Your task to perform on an android device: clear history in the chrome app Image 0: 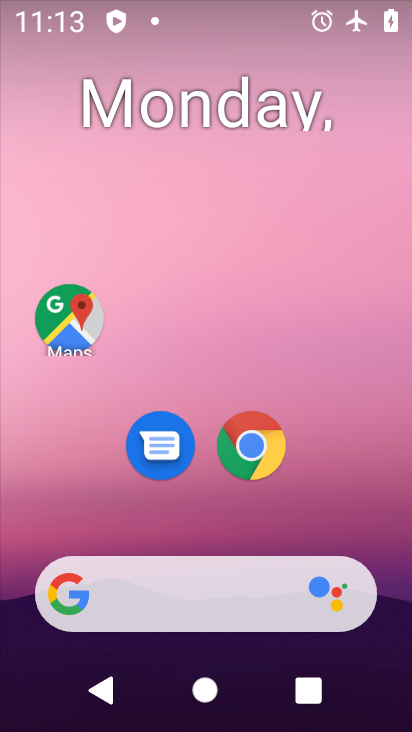
Step 0: click (271, 447)
Your task to perform on an android device: clear history in the chrome app Image 1: 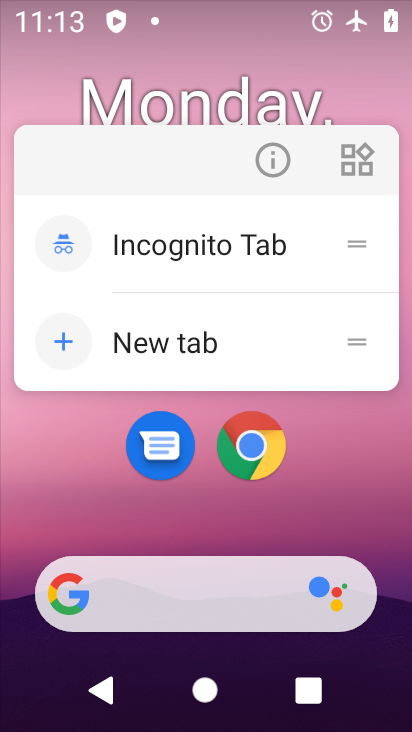
Step 1: click (241, 452)
Your task to perform on an android device: clear history in the chrome app Image 2: 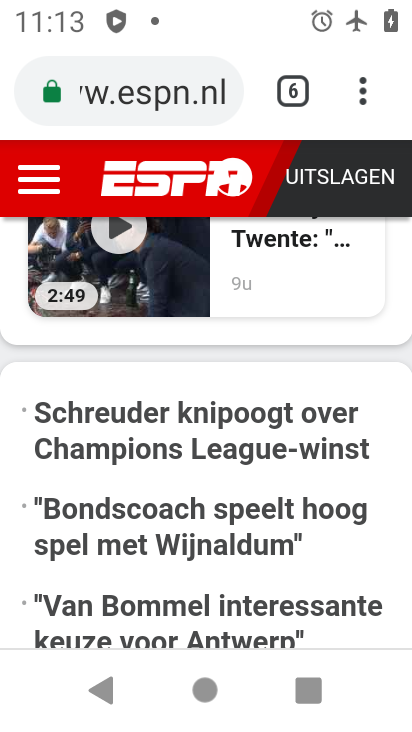
Step 2: click (360, 93)
Your task to perform on an android device: clear history in the chrome app Image 3: 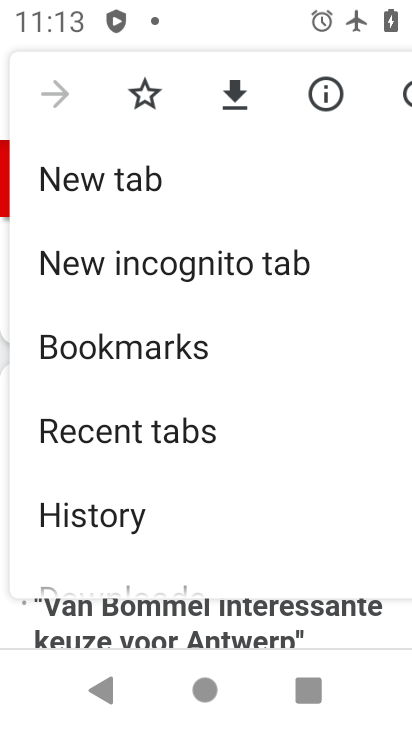
Step 3: drag from (142, 506) to (136, 248)
Your task to perform on an android device: clear history in the chrome app Image 4: 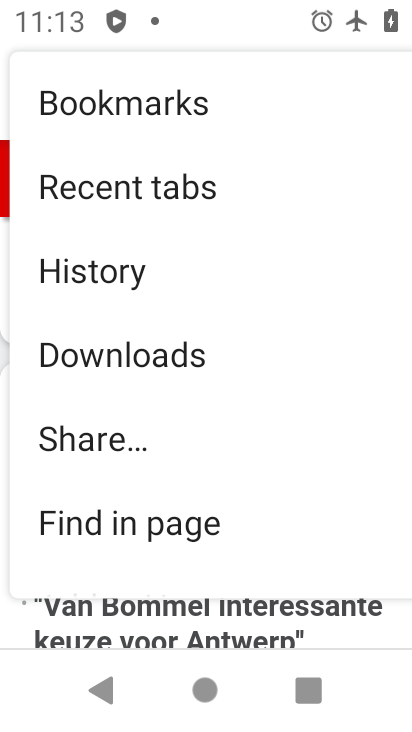
Step 4: click (111, 269)
Your task to perform on an android device: clear history in the chrome app Image 5: 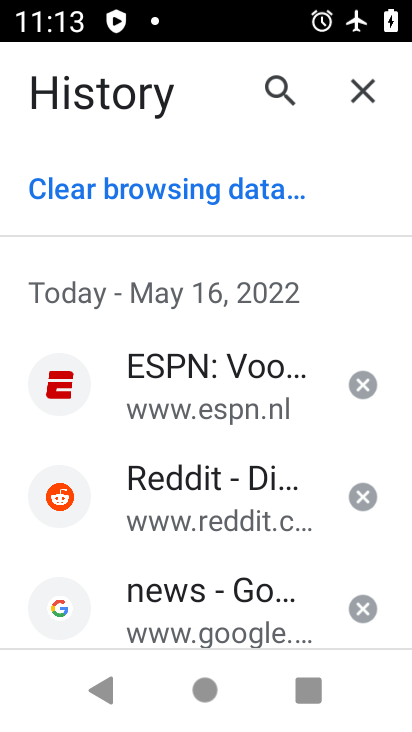
Step 5: click (163, 194)
Your task to perform on an android device: clear history in the chrome app Image 6: 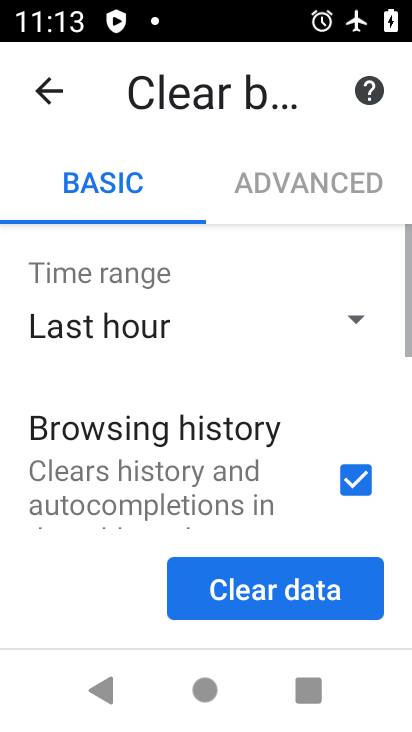
Step 6: click (265, 598)
Your task to perform on an android device: clear history in the chrome app Image 7: 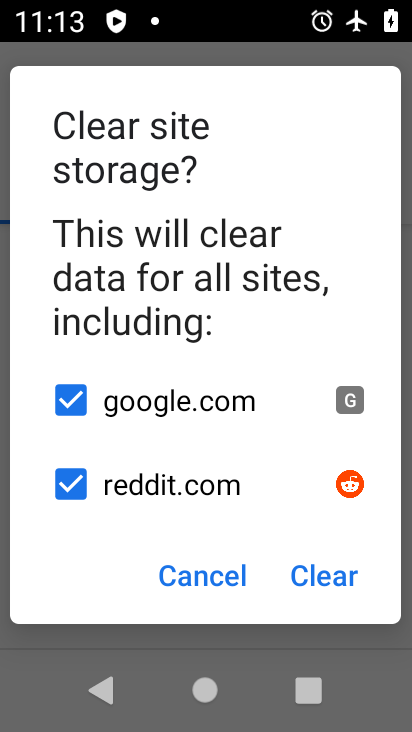
Step 7: click (314, 574)
Your task to perform on an android device: clear history in the chrome app Image 8: 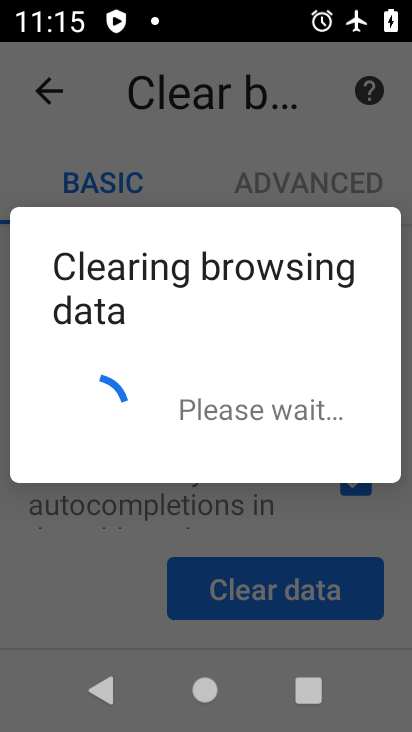
Step 8: drag from (198, 587) to (185, 181)
Your task to perform on an android device: clear history in the chrome app Image 9: 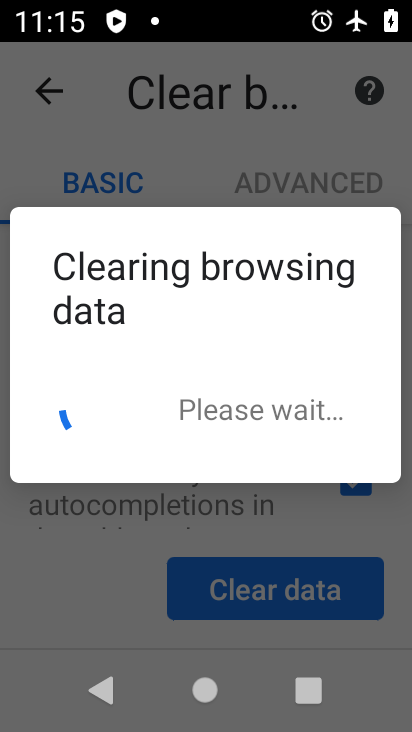
Step 9: drag from (210, 493) to (202, 113)
Your task to perform on an android device: clear history in the chrome app Image 10: 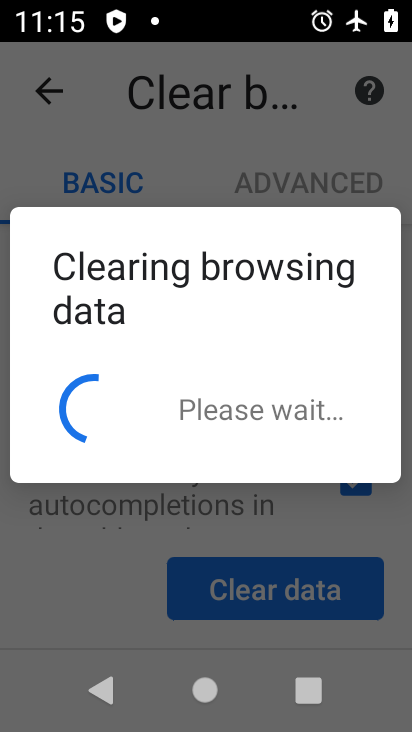
Step 10: press back button
Your task to perform on an android device: clear history in the chrome app Image 11: 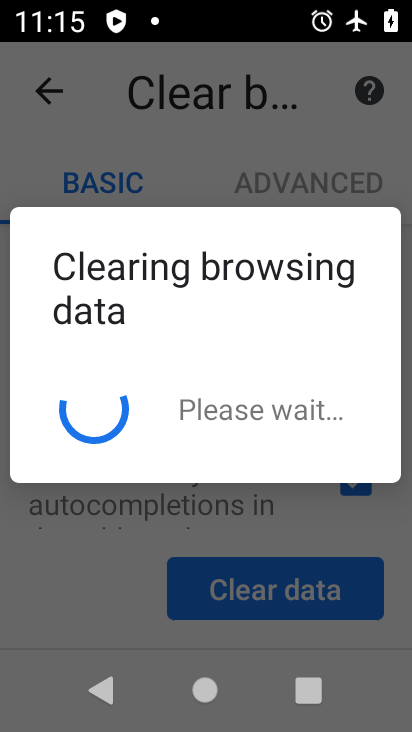
Step 11: press back button
Your task to perform on an android device: clear history in the chrome app Image 12: 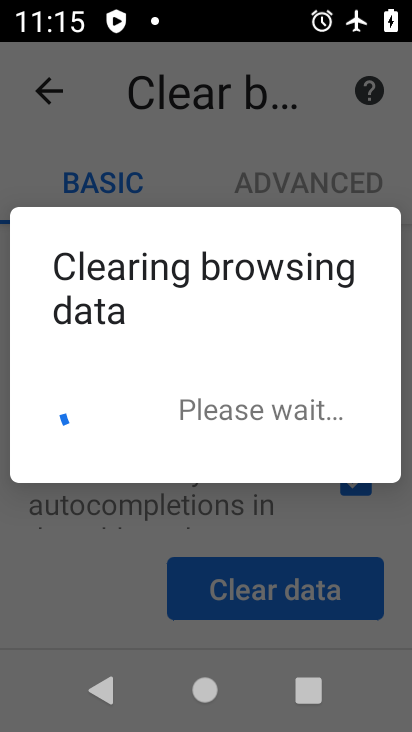
Step 12: click (284, 174)
Your task to perform on an android device: clear history in the chrome app Image 13: 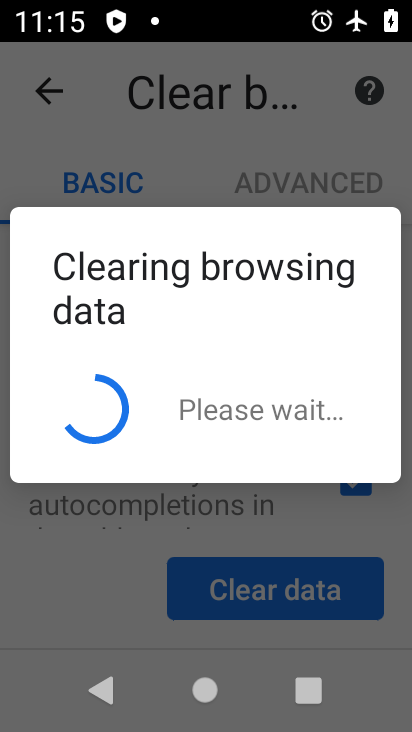
Step 13: click (281, 172)
Your task to perform on an android device: clear history in the chrome app Image 14: 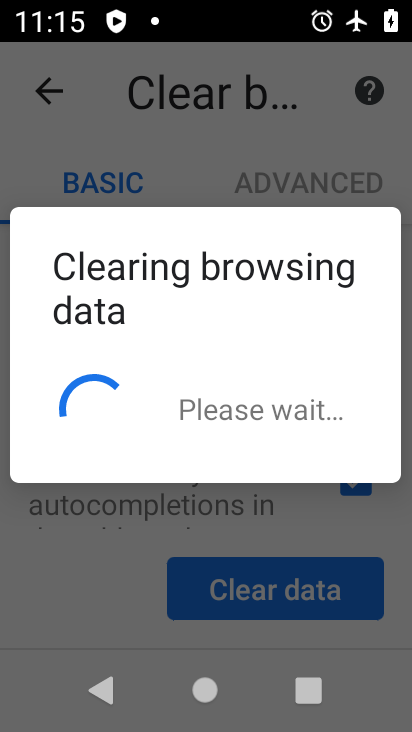
Step 14: click (176, 416)
Your task to perform on an android device: clear history in the chrome app Image 15: 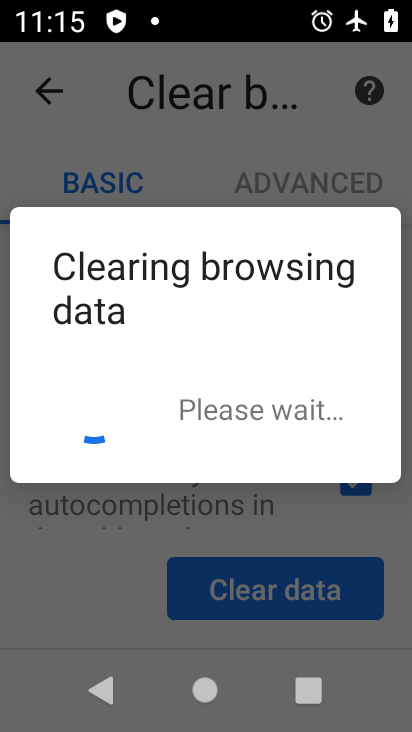
Step 15: click (175, 416)
Your task to perform on an android device: clear history in the chrome app Image 16: 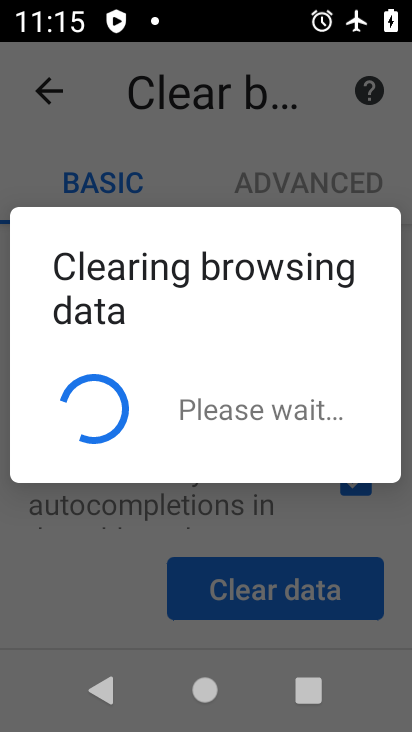
Step 16: task complete